Your task to perform on an android device: Go to Android settings Image 0: 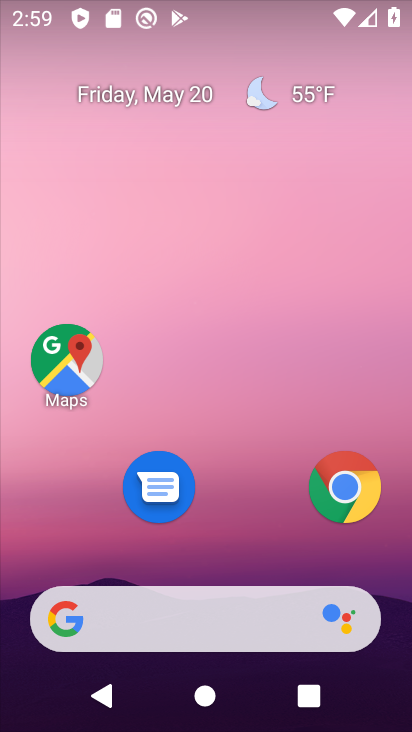
Step 0: drag from (342, 649) to (42, 89)
Your task to perform on an android device: Go to Android settings Image 1: 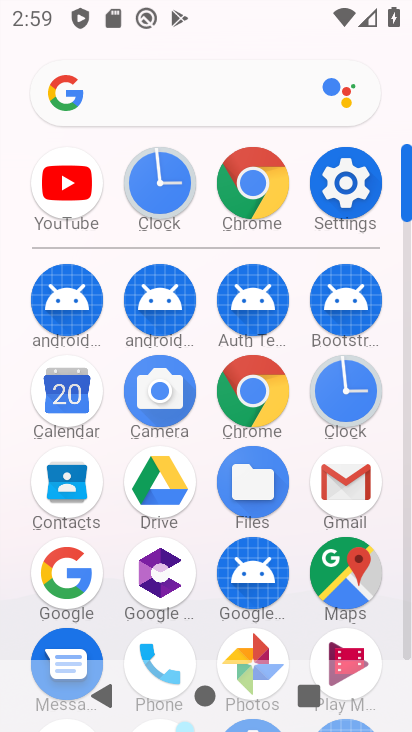
Step 1: click (342, 180)
Your task to perform on an android device: Go to Android settings Image 2: 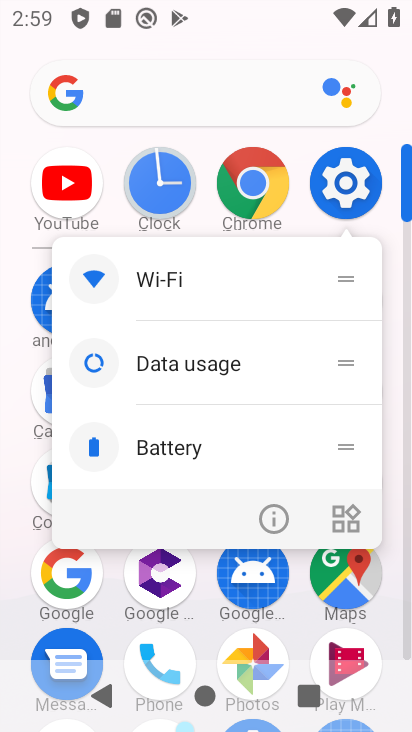
Step 2: click (342, 172)
Your task to perform on an android device: Go to Android settings Image 3: 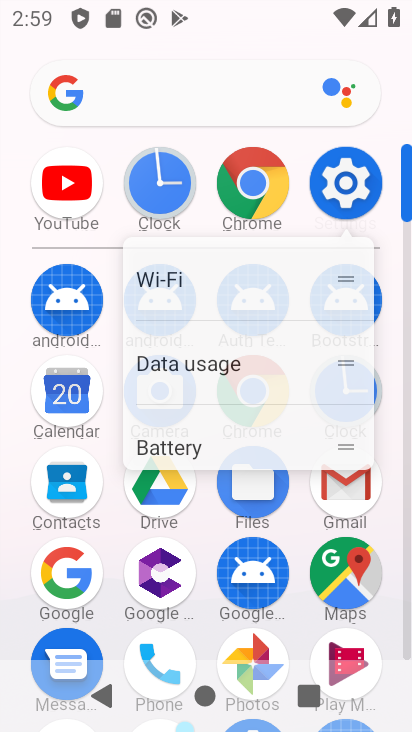
Step 3: click (340, 171)
Your task to perform on an android device: Go to Android settings Image 4: 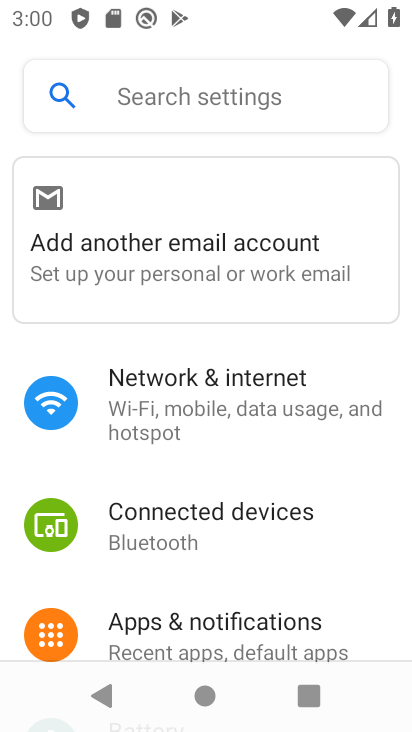
Step 4: drag from (183, 524) to (128, 231)
Your task to perform on an android device: Go to Android settings Image 5: 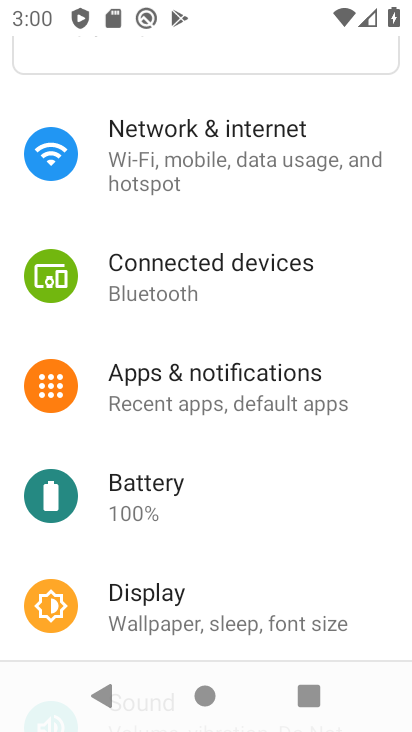
Step 5: drag from (241, 486) to (222, 168)
Your task to perform on an android device: Go to Android settings Image 6: 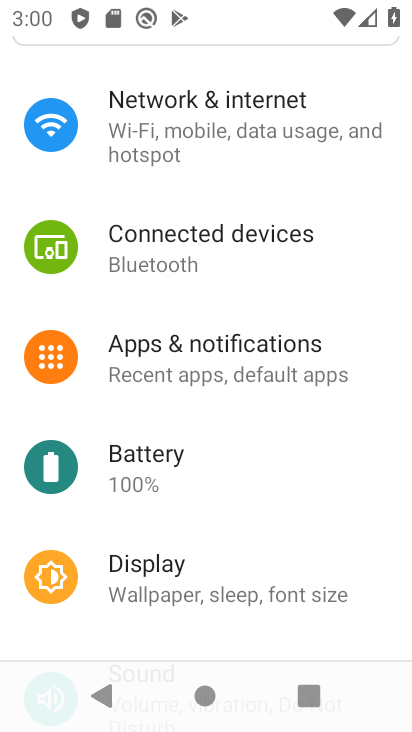
Step 6: press back button
Your task to perform on an android device: Go to Android settings Image 7: 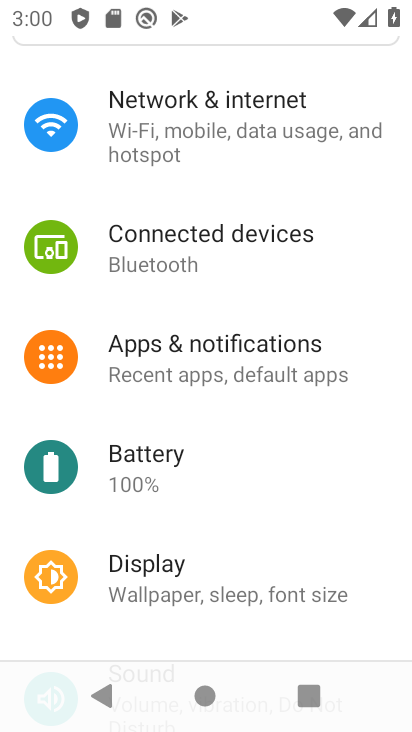
Step 7: press back button
Your task to perform on an android device: Go to Android settings Image 8: 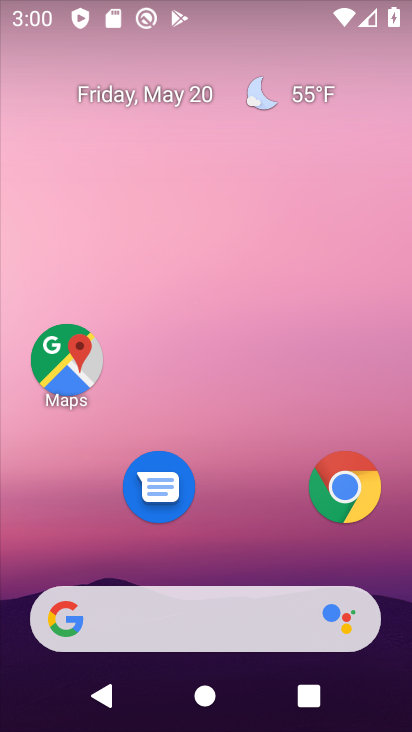
Step 8: drag from (231, 639) to (123, 5)
Your task to perform on an android device: Go to Android settings Image 9: 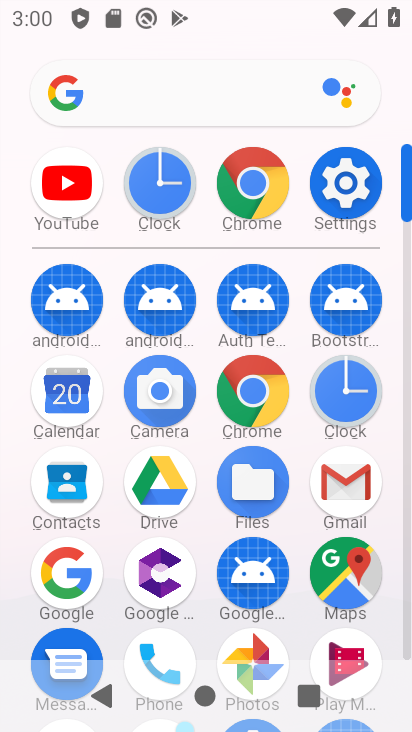
Step 9: click (337, 177)
Your task to perform on an android device: Go to Android settings Image 10: 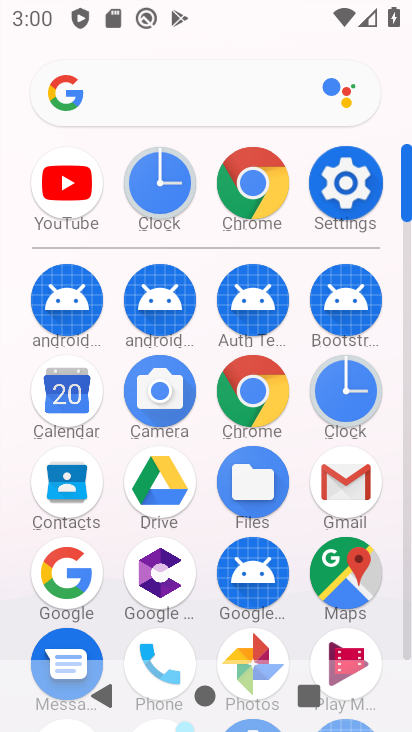
Step 10: click (337, 176)
Your task to perform on an android device: Go to Android settings Image 11: 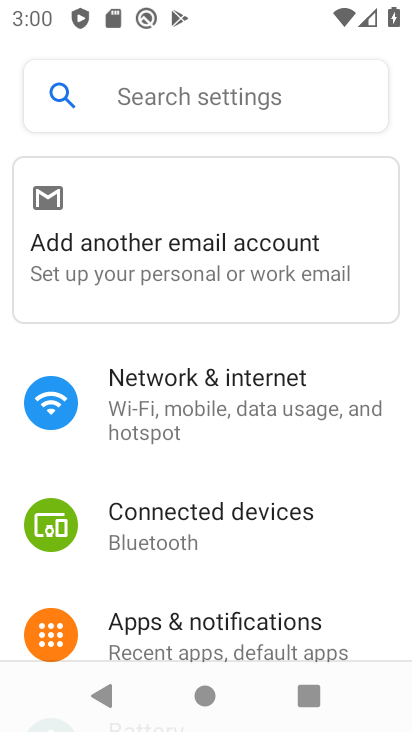
Step 11: drag from (210, 543) to (157, 256)
Your task to perform on an android device: Go to Android settings Image 12: 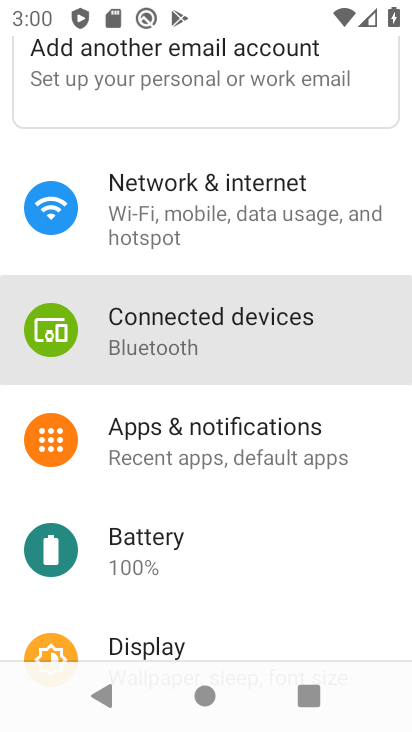
Step 12: drag from (205, 487) to (165, 225)
Your task to perform on an android device: Go to Android settings Image 13: 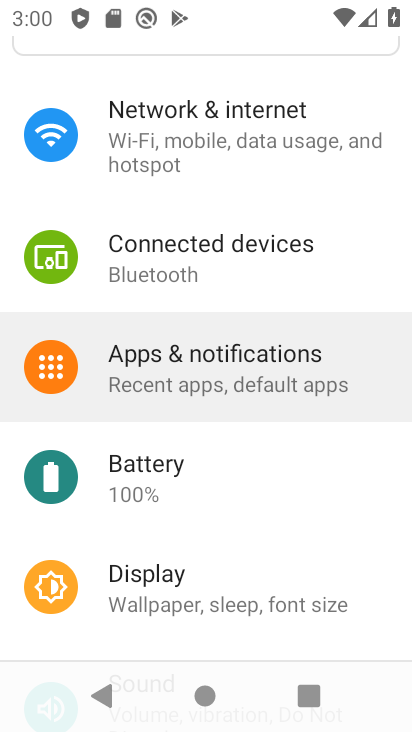
Step 13: drag from (208, 452) to (179, 150)
Your task to perform on an android device: Go to Android settings Image 14: 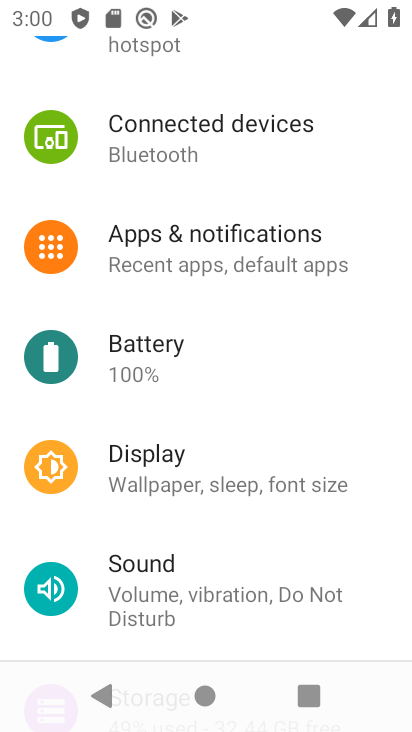
Step 14: drag from (195, 474) to (195, 233)
Your task to perform on an android device: Go to Android settings Image 15: 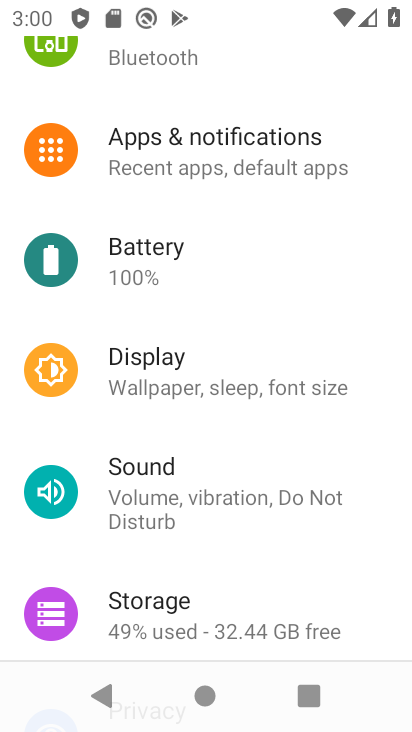
Step 15: drag from (259, 478) to (172, 182)
Your task to perform on an android device: Go to Android settings Image 16: 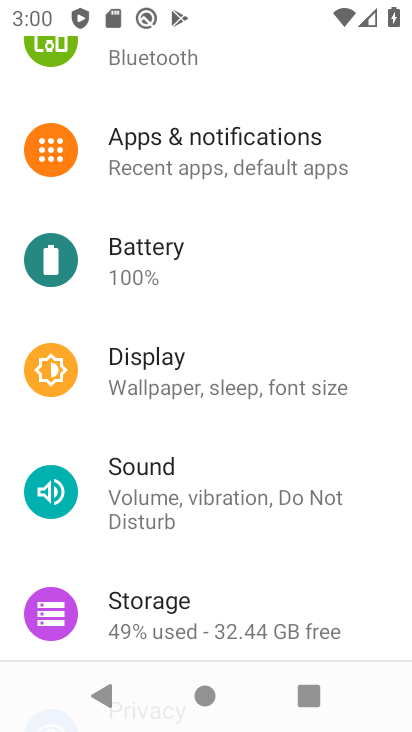
Step 16: drag from (209, 390) to (211, 103)
Your task to perform on an android device: Go to Android settings Image 17: 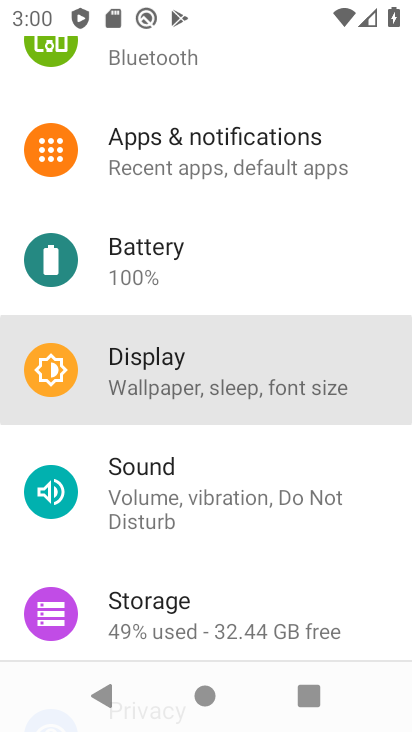
Step 17: drag from (259, 395) to (212, 17)
Your task to perform on an android device: Go to Android settings Image 18: 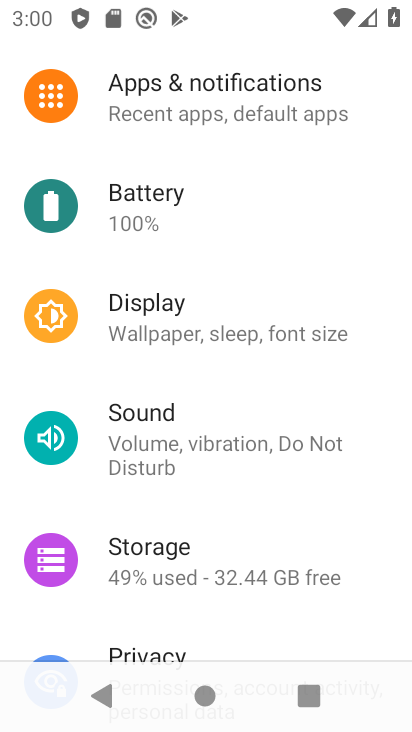
Step 18: drag from (200, 477) to (221, 51)
Your task to perform on an android device: Go to Android settings Image 19: 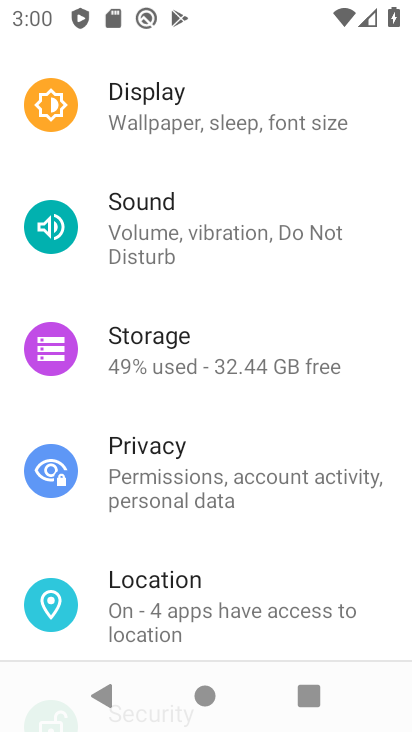
Step 19: drag from (185, 563) to (157, 497)
Your task to perform on an android device: Go to Android settings Image 20: 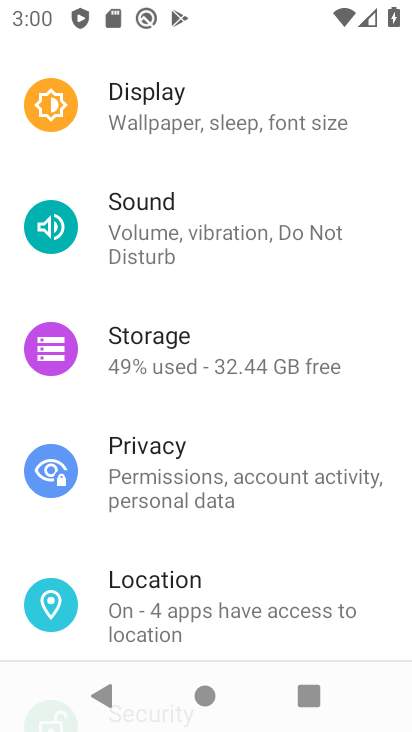
Step 20: drag from (169, 497) to (90, 36)
Your task to perform on an android device: Go to Android settings Image 21: 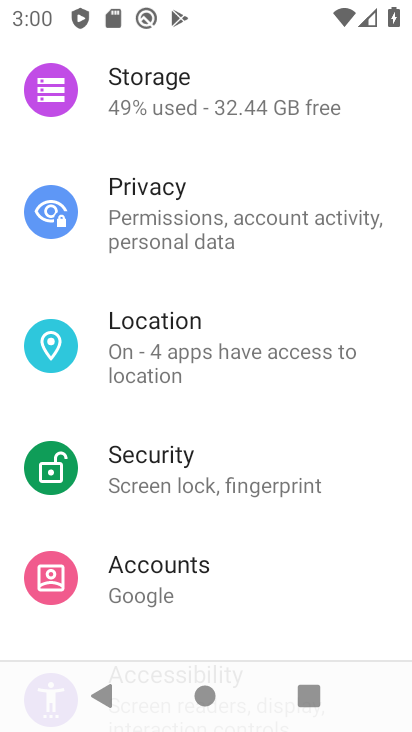
Step 21: drag from (247, 504) to (183, 115)
Your task to perform on an android device: Go to Android settings Image 22: 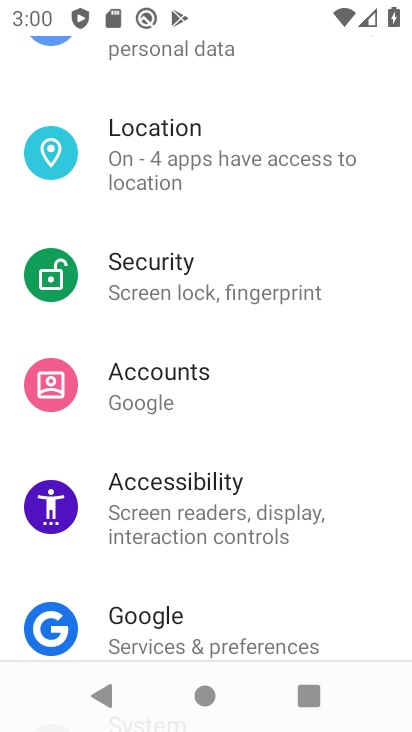
Step 22: drag from (195, 485) to (95, 76)
Your task to perform on an android device: Go to Android settings Image 23: 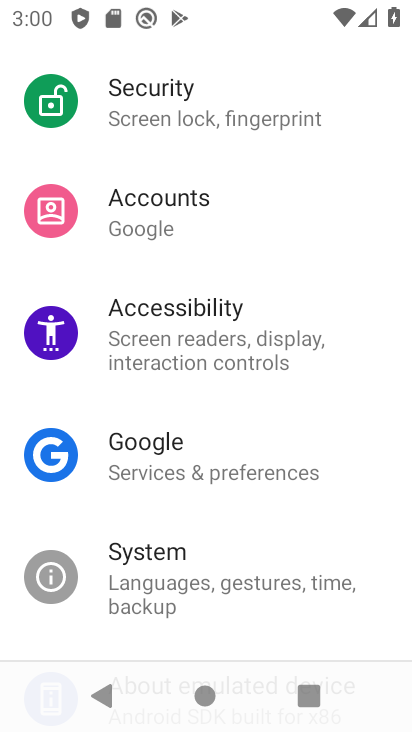
Step 23: drag from (212, 484) to (183, 263)
Your task to perform on an android device: Go to Android settings Image 24: 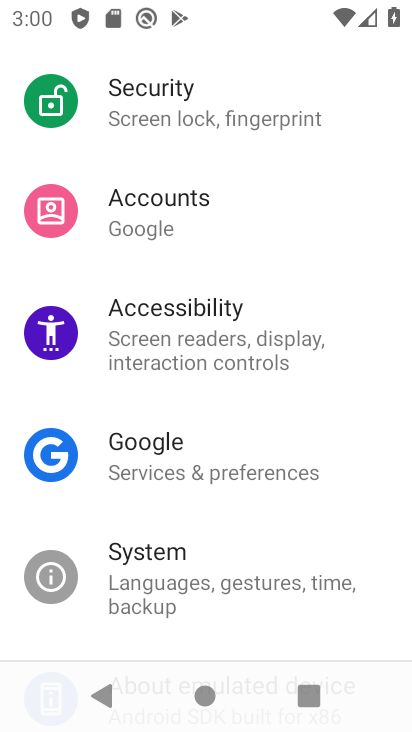
Step 24: click (147, 593)
Your task to perform on an android device: Go to Android settings Image 25: 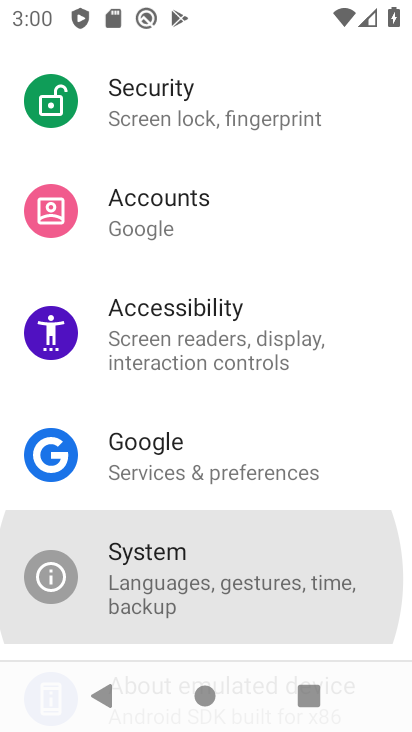
Step 25: click (147, 592)
Your task to perform on an android device: Go to Android settings Image 26: 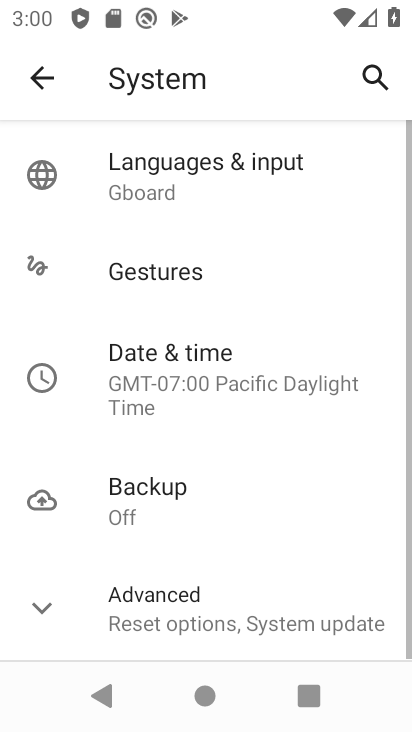
Step 26: click (134, 570)
Your task to perform on an android device: Go to Android settings Image 27: 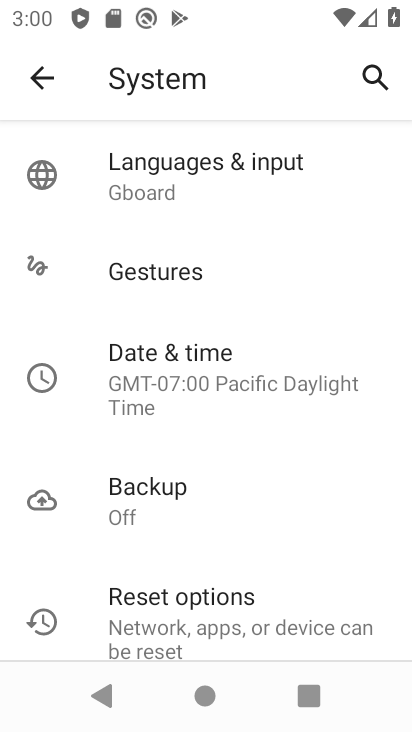
Step 27: task complete